Your task to perform on an android device: What's the weather going to be tomorrow? Image 0: 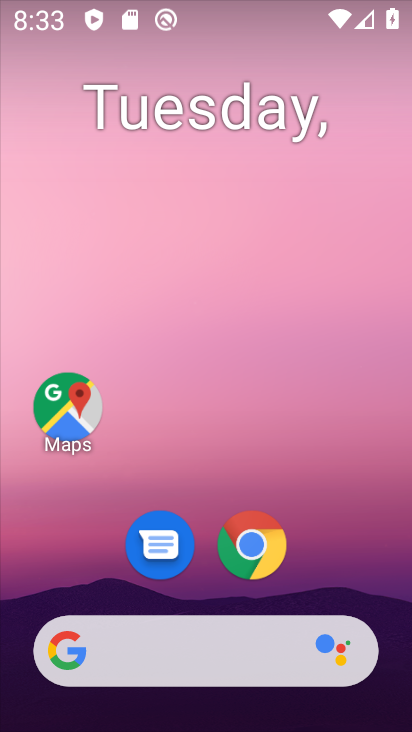
Step 0: click (282, 550)
Your task to perform on an android device: What's the weather going to be tomorrow? Image 1: 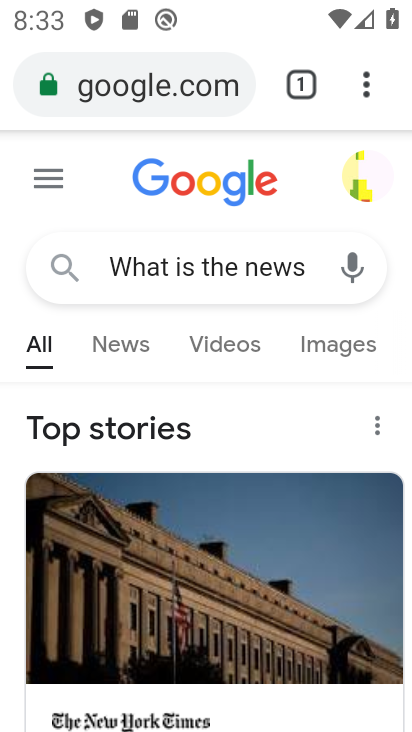
Step 1: drag from (410, 692) to (407, 475)
Your task to perform on an android device: What's the weather going to be tomorrow? Image 2: 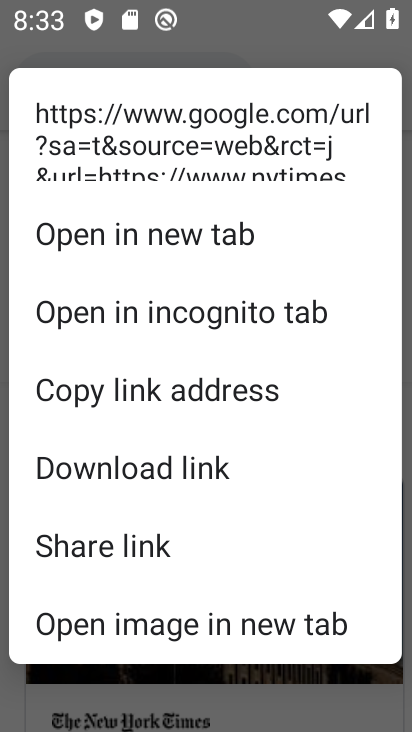
Step 2: click (368, 685)
Your task to perform on an android device: What's the weather going to be tomorrow? Image 3: 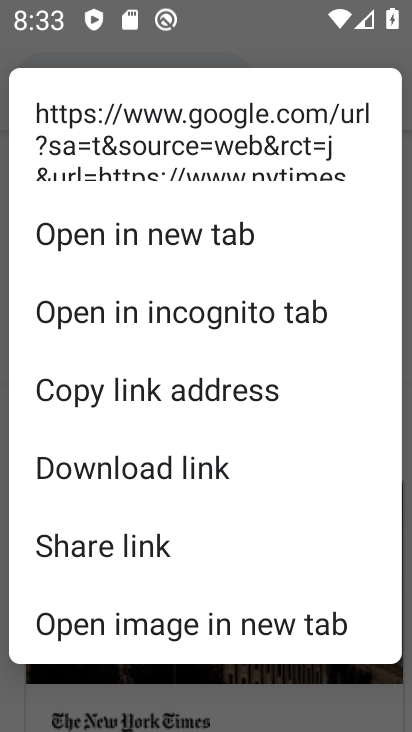
Step 3: press back button
Your task to perform on an android device: What's the weather going to be tomorrow? Image 4: 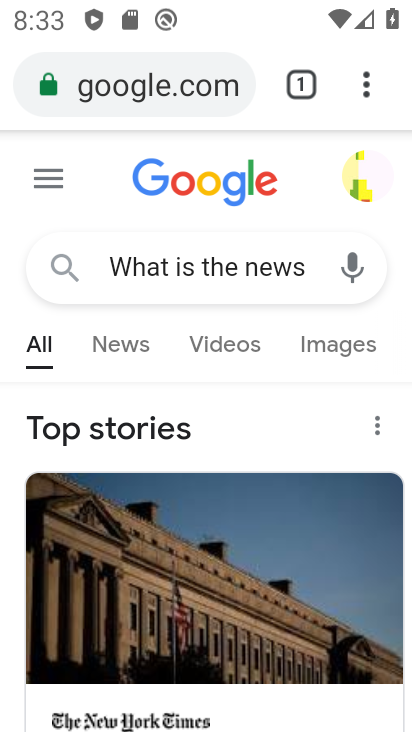
Step 4: click (182, 96)
Your task to perform on an android device: What's the weather going to be tomorrow? Image 5: 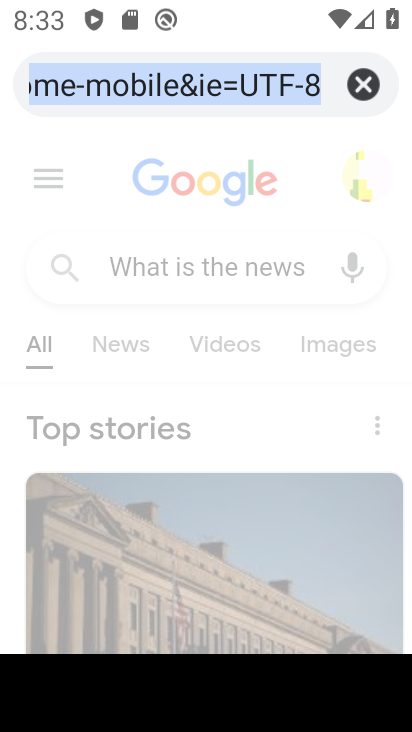
Step 5: type "What's the weather going to be tomorrow?"
Your task to perform on an android device: What's the weather going to be tomorrow? Image 6: 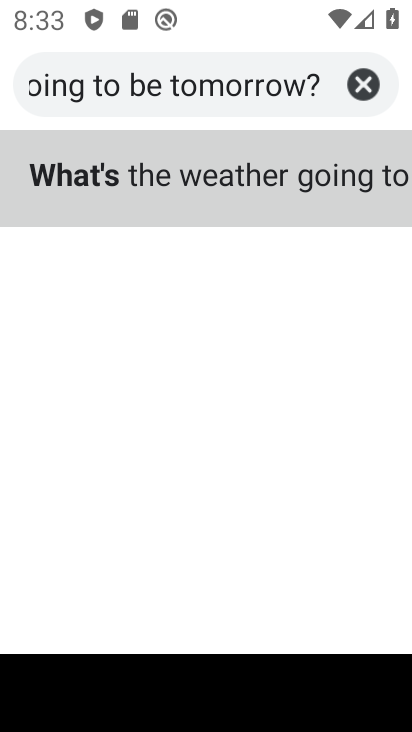
Step 6: press enter
Your task to perform on an android device: What's the weather going to be tomorrow? Image 7: 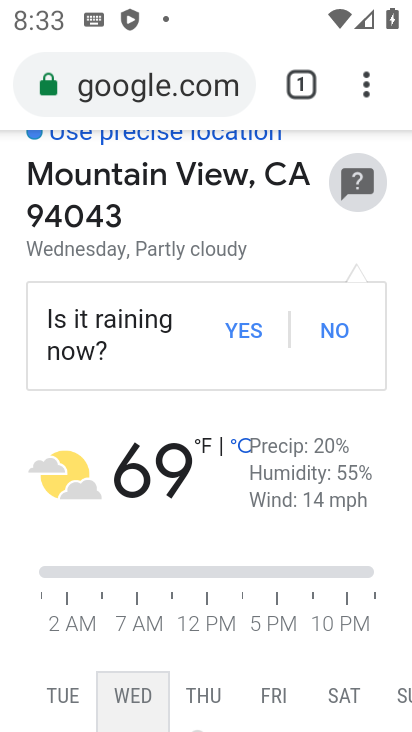
Step 7: task complete